Your task to perform on an android device: create a new album in the google photos Image 0: 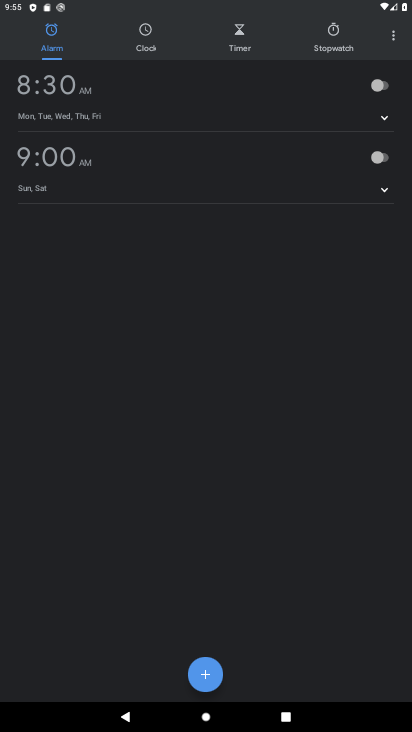
Step 0: press home button
Your task to perform on an android device: create a new album in the google photos Image 1: 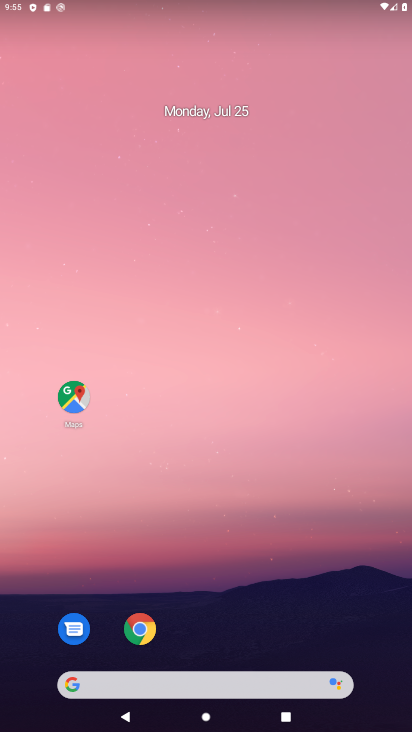
Step 1: drag from (315, 577) to (289, 42)
Your task to perform on an android device: create a new album in the google photos Image 2: 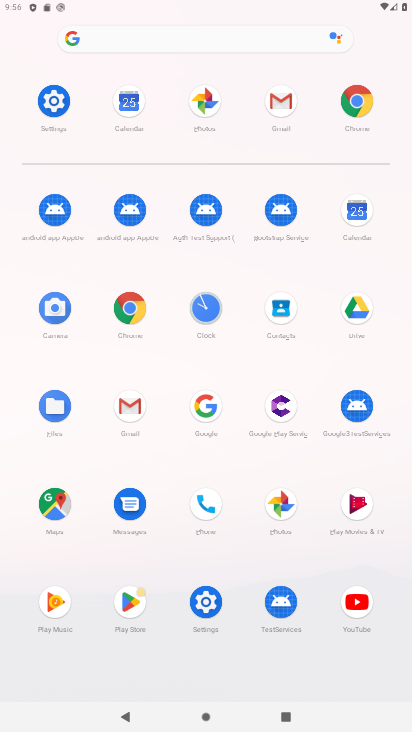
Step 2: click (280, 509)
Your task to perform on an android device: create a new album in the google photos Image 3: 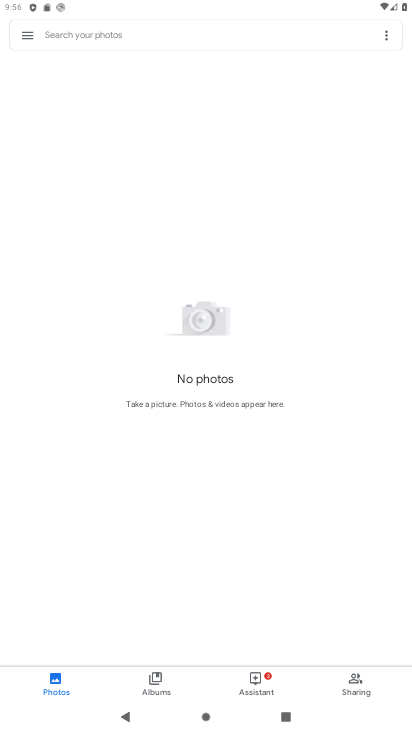
Step 3: click (146, 682)
Your task to perform on an android device: create a new album in the google photos Image 4: 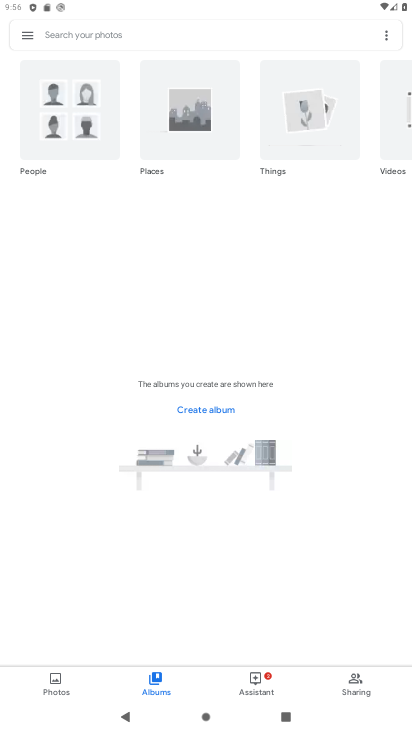
Step 4: click (210, 404)
Your task to perform on an android device: create a new album in the google photos Image 5: 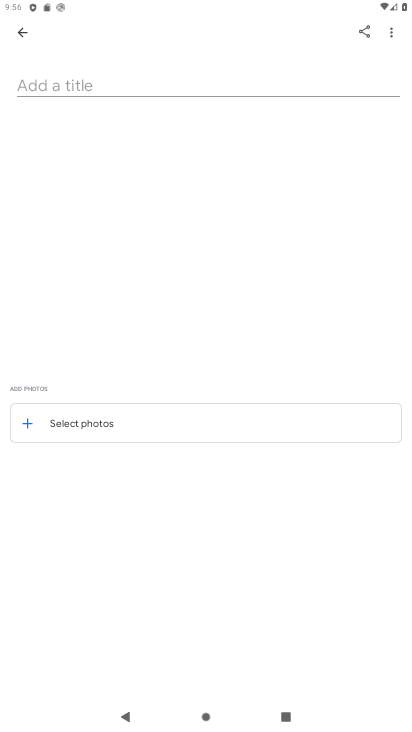
Step 5: click (241, 90)
Your task to perform on an android device: create a new album in the google photos Image 6: 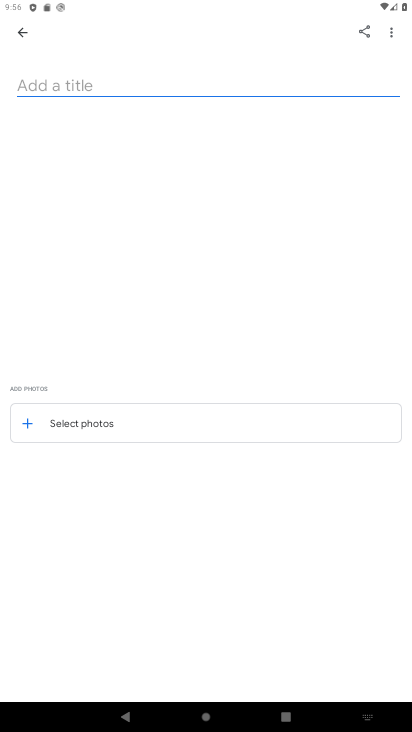
Step 6: type "create a aalbulm"
Your task to perform on an android device: create a new album in the google photos Image 7: 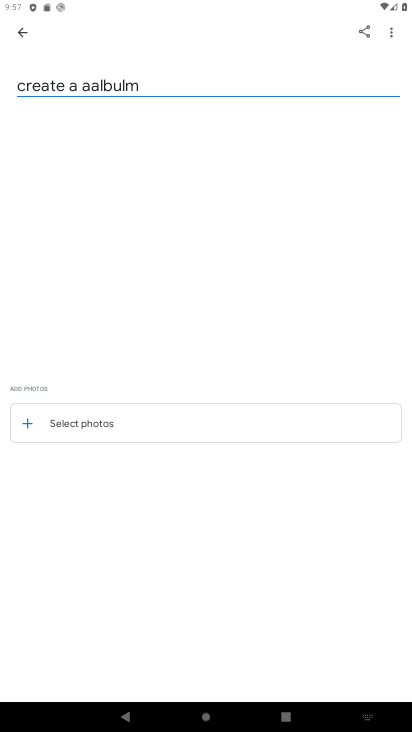
Step 7: click (18, 31)
Your task to perform on an android device: create a new album in the google photos Image 8: 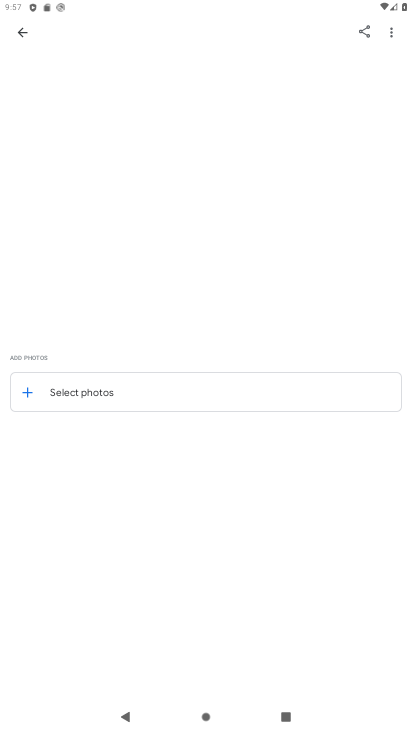
Step 8: task complete